Your task to perform on an android device: Open Yahoo.com Image 0: 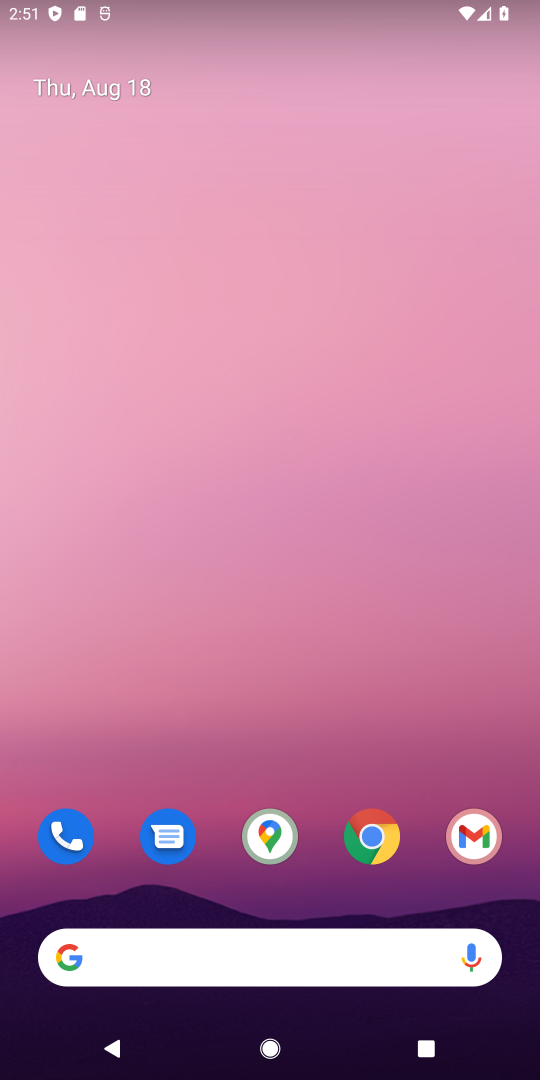
Step 0: click (361, 824)
Your task to perform on an android device: Open Yahoo.com Image 1: 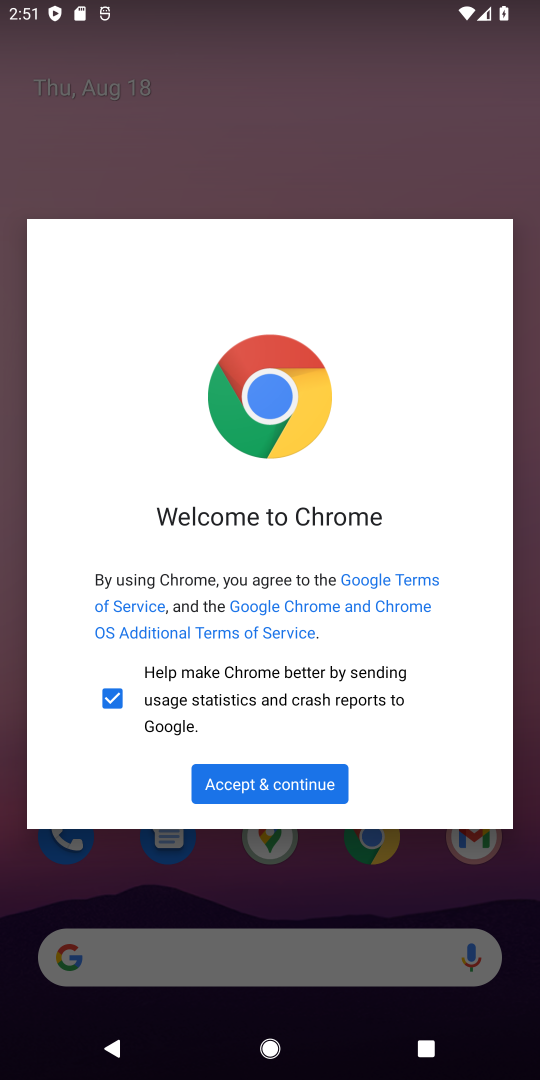
Step 1: click (326, 754)
Your task to perform on an android device: Open Yahoo.com Image 2: 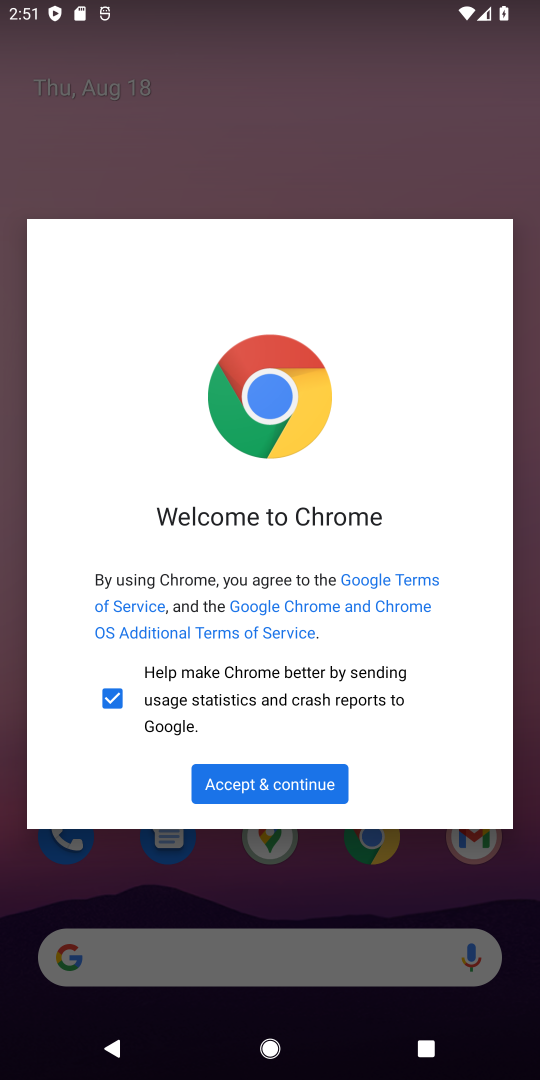
Step 2: click (295, 777)
Your task to perform on an android device: Open Yahoo.com Image 3: 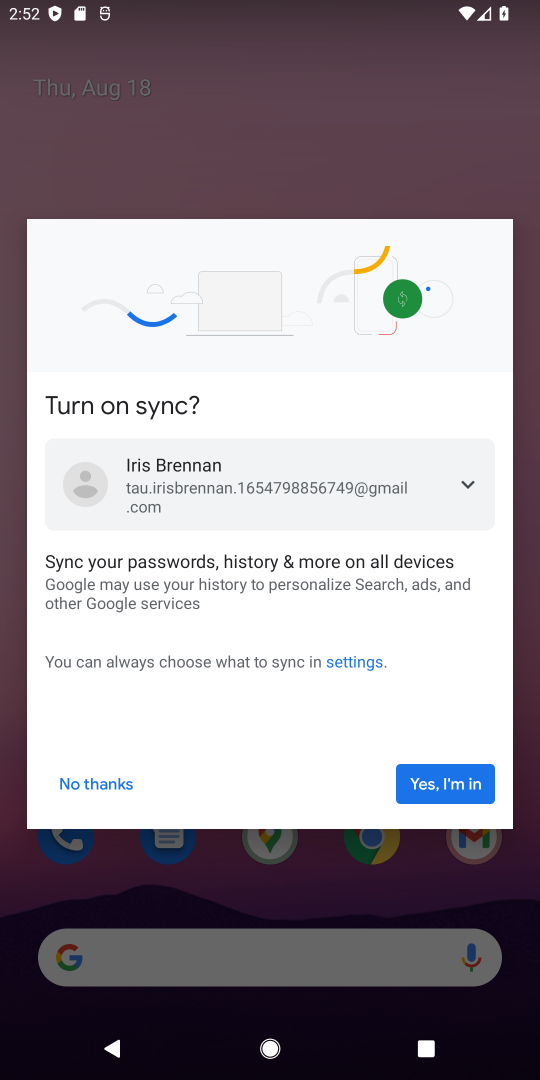
Step 3: click (454, 772)
Your task to perform on an android device: Open Yahoo.com Image 4: 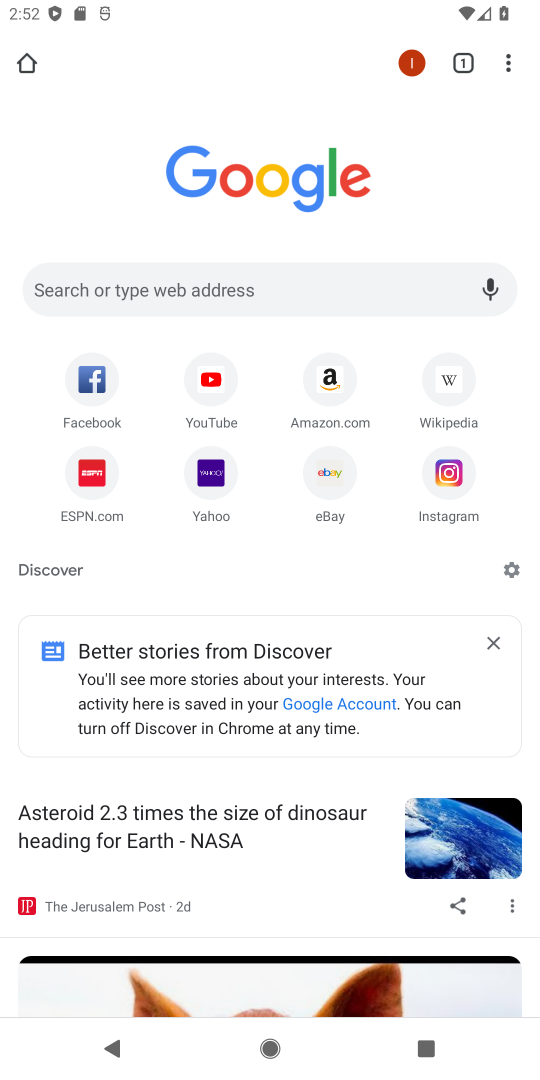
Step 4: click (215, 466)
Your task to perform on an android device: Open Yahoo.com Image 5: 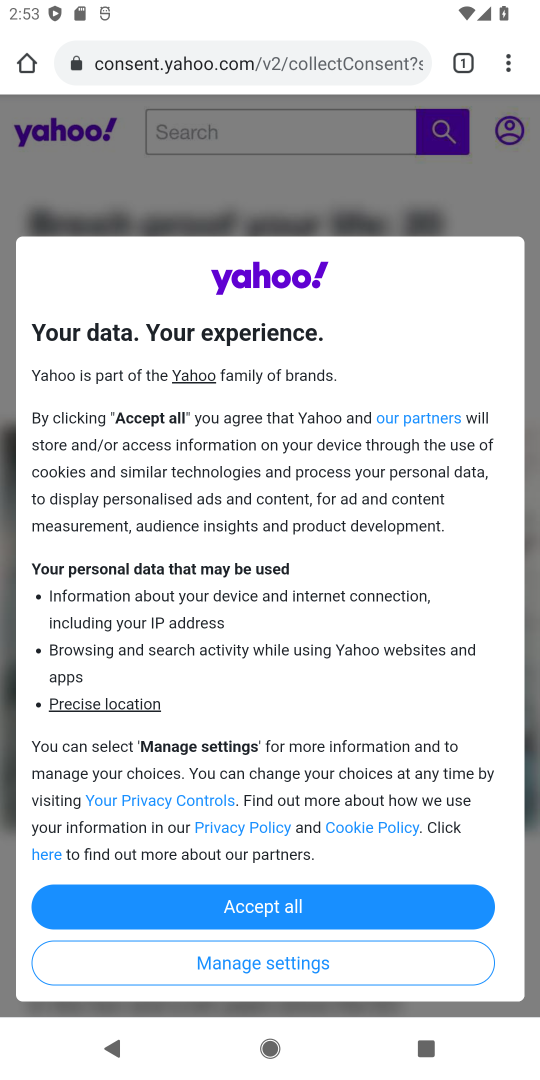
Step 5: task complete